Your task to perform on an android device: Go to Android settings Image 0: 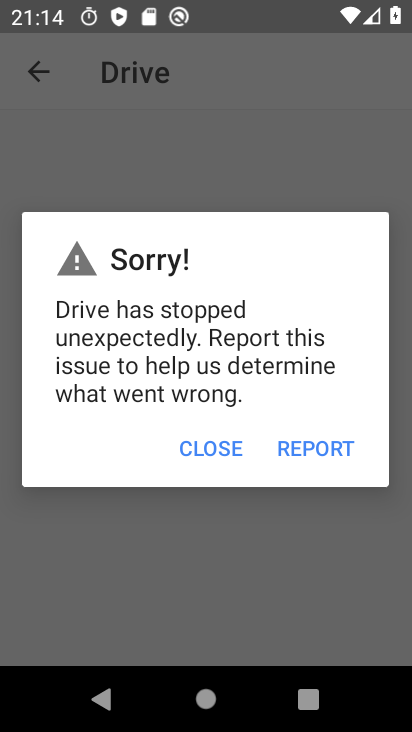
Step 0: press home button
Your task to perform on an android device: Go to Android settings Image 1: 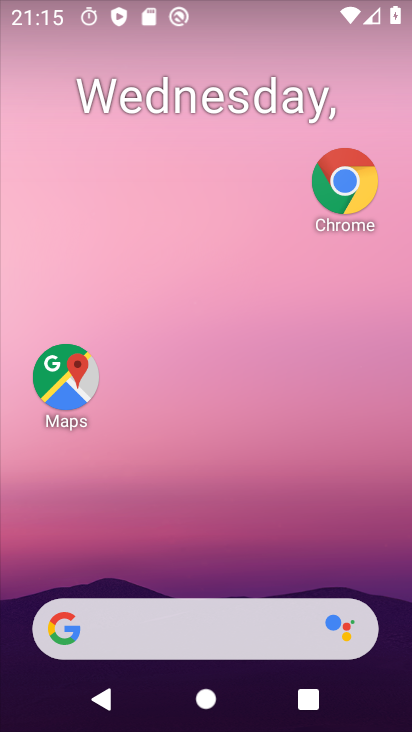
Step 1: drag from (276, 670) to (391, 345)
Your task to perform on an android device: Go to Android settings Image 2: 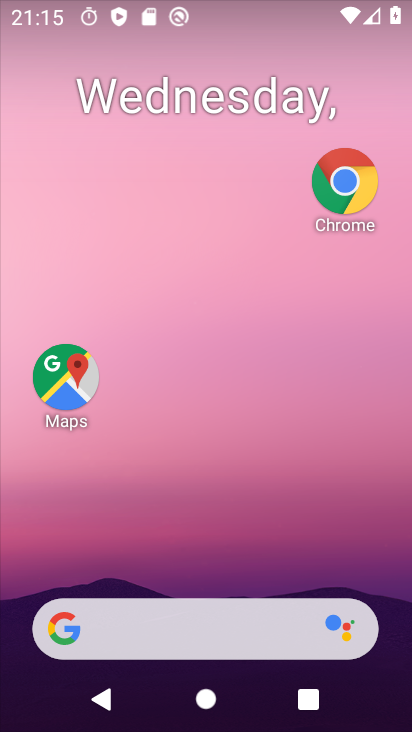
Step 2: drag from (234, 663) to (311, 201)
Your task to perform on an android device: Go to Android settings Image 3: 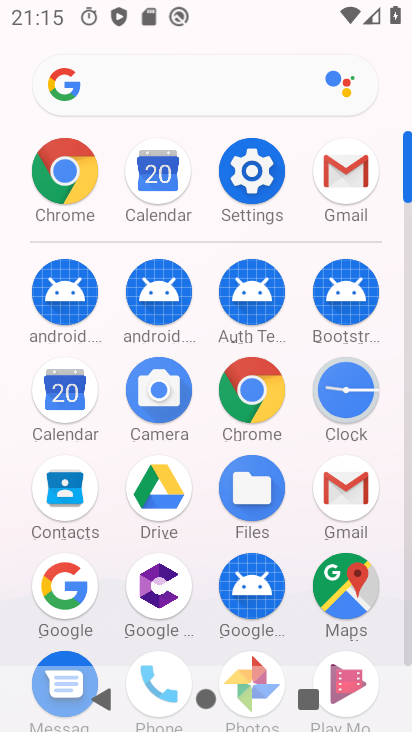
Step 3: click (256, 195)
Your task to perform on an android device: Go to Android settings Image 4: 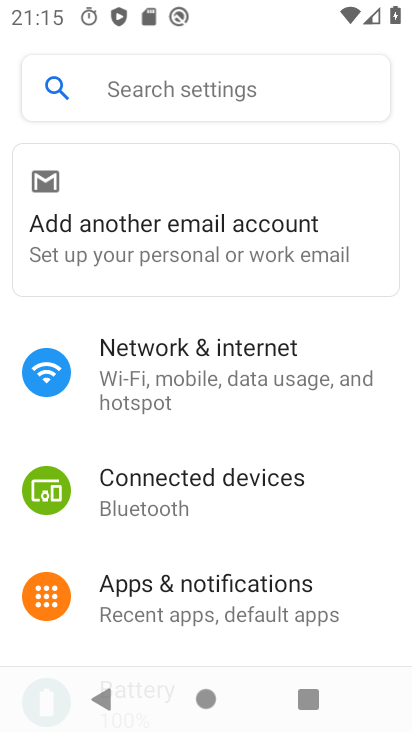
Step 4: click (189, 96)
Your task to perform on an android device: Go to Android settings Image 5: 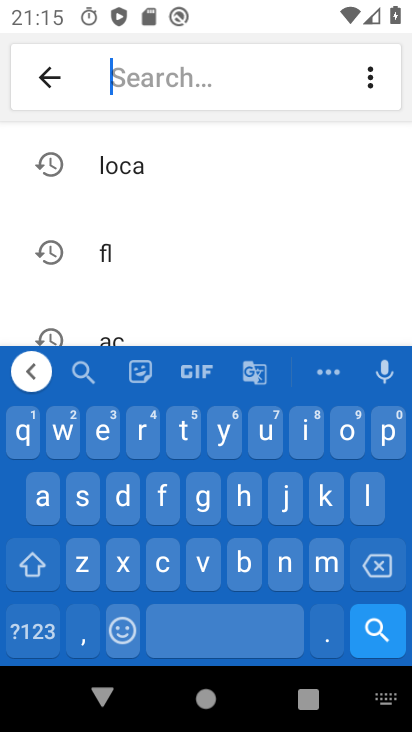
Step 5: click (44, 504)
Your task to perform on an android device: Go to Android settings Image 6: 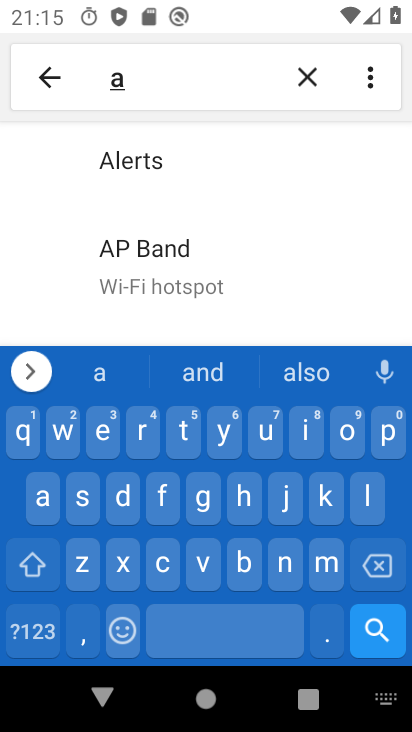
Step 6: click (286, 568)
Your task to perform on an android device: Go to Android settings Image 7: 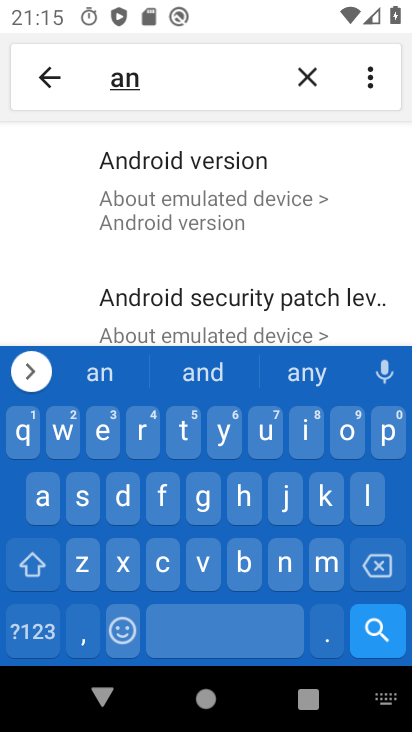
Step 7: click (120, 497)
Your task to perform on an android device: Go to Android settings Image 8: 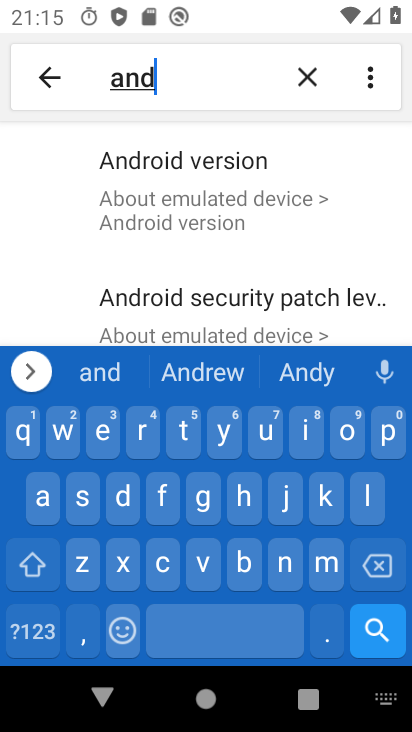
Step 8: click (136, 441)
Your task to perform on an android device: Go to Android settings Image 9: 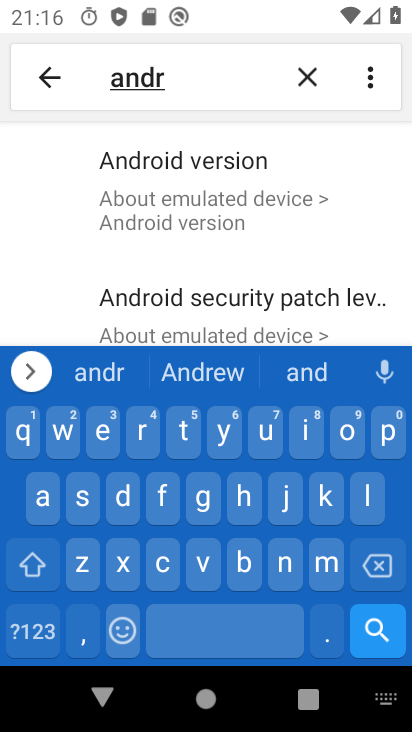
Step 9: click (183, 202)
Your task to perform on an android device: Go to Android settings Image 10: 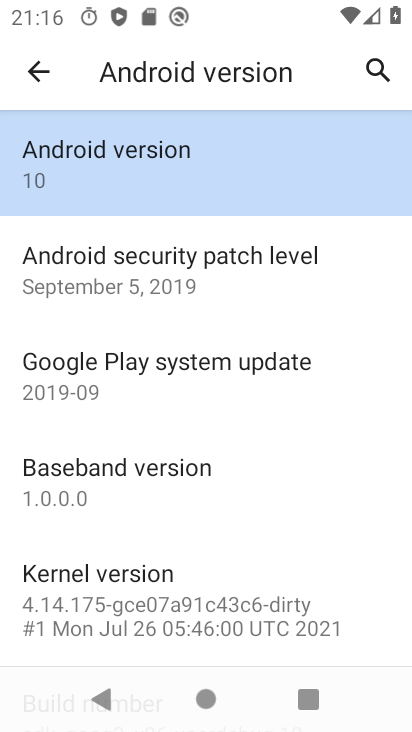
Step 10: click (183, 202)
Your task to perform on an android device: Go to Android settings Image 11: 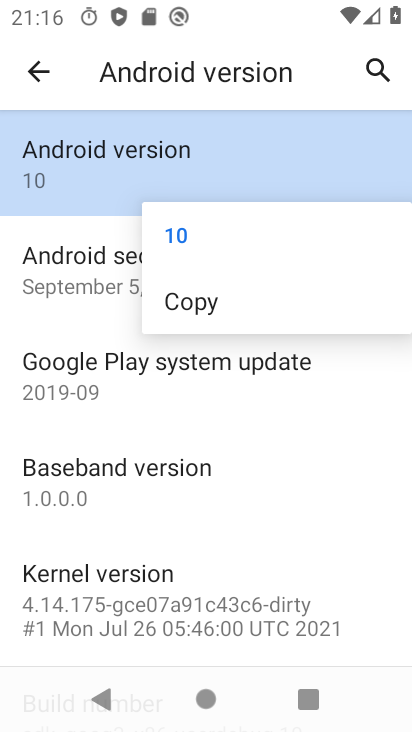
Step 11: task complete